Your task to perform on an android device: Open Youtube and go to the subscriptions tab Image 0: 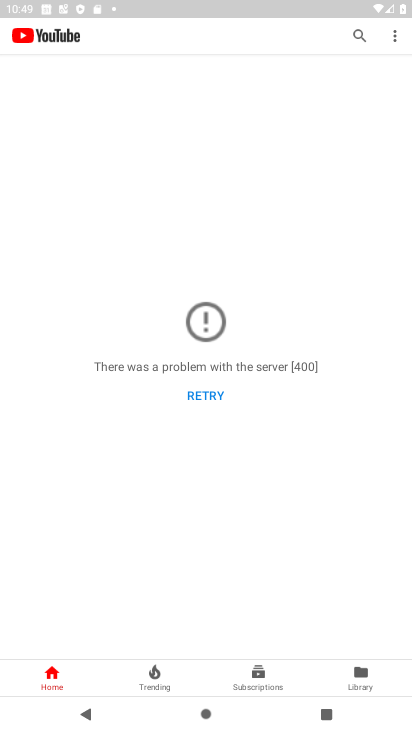
Step 0: click (265, 688)
Your task to perform on an android device: Open Youtube and go to the subscriptions tab Image 1: 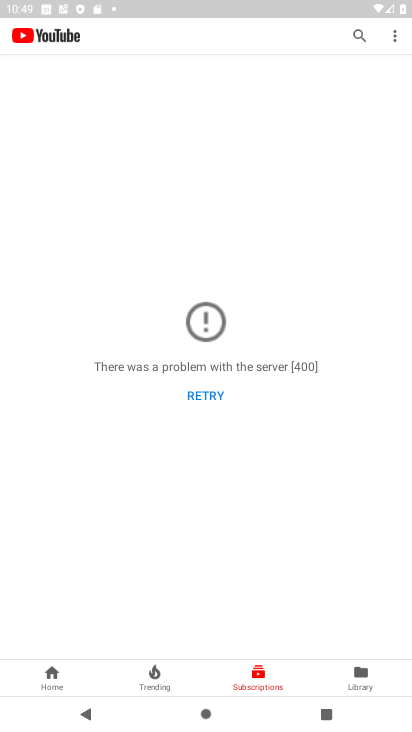
Step 1: task complete